Your task to perform on an android device: Go to Google maps Image 0: 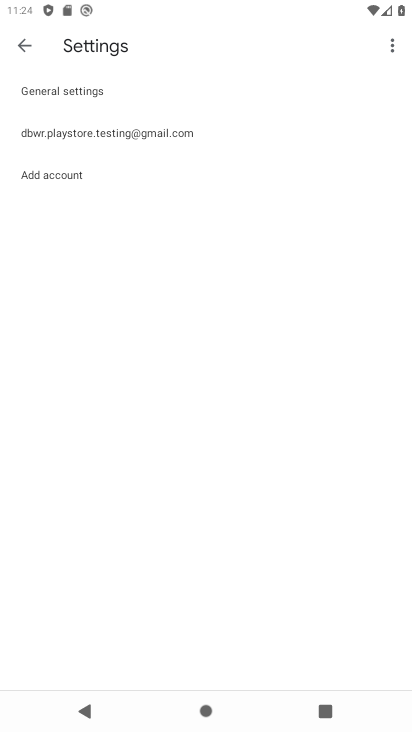
Step 0: drag from (169, 643) to (316, 126)
Your task to perform on an android device: Go to Google maps Image 1: 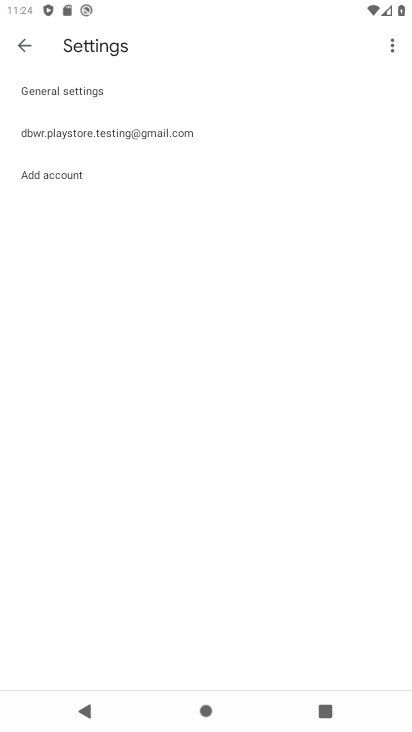
Step 1: press home button
Your task to perform on an android device: Go to Google maps Image 2: 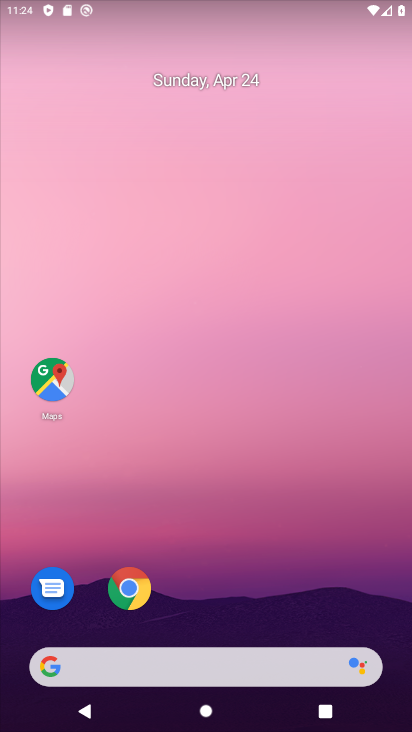
Step 2: click (35, 388)
Your task to perform on an android device: Go to Google maps Image 3: 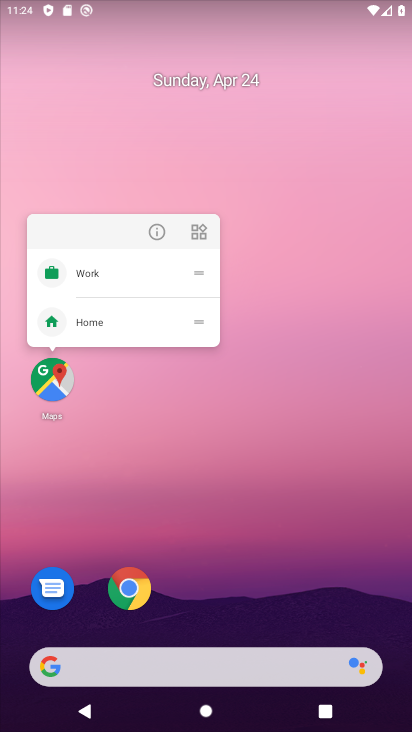
Step 3: click (48, 372)
Your task to perform on an android device: Go to Google maps Image 4: 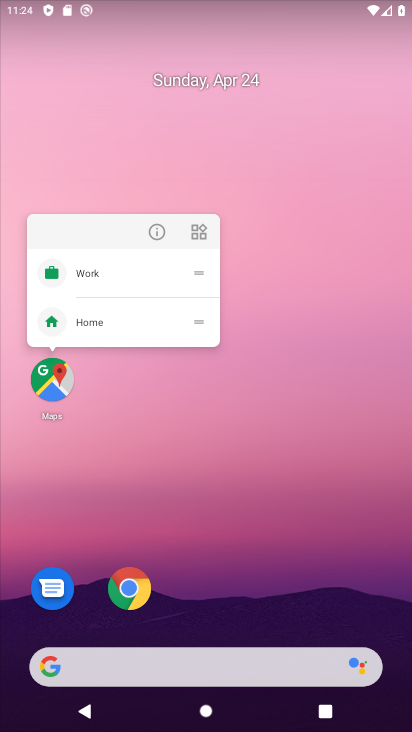
Step 4: click (62, 375)
Your task to perform on an android device: Go to Google maps Image 5: 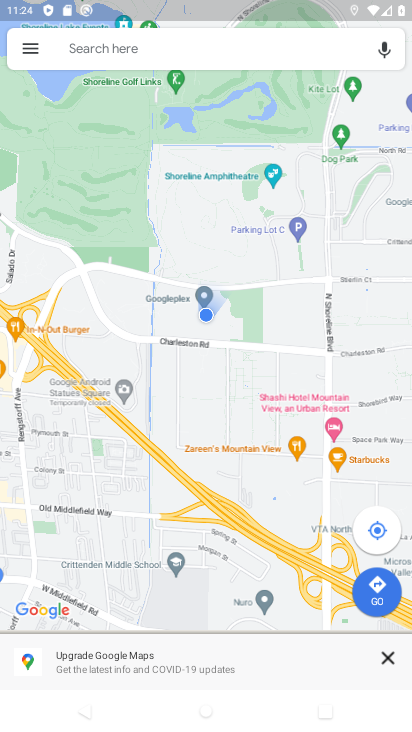
Step 5: task complete